Your task to perform on an android device: Toggle the flashlight Image 0: 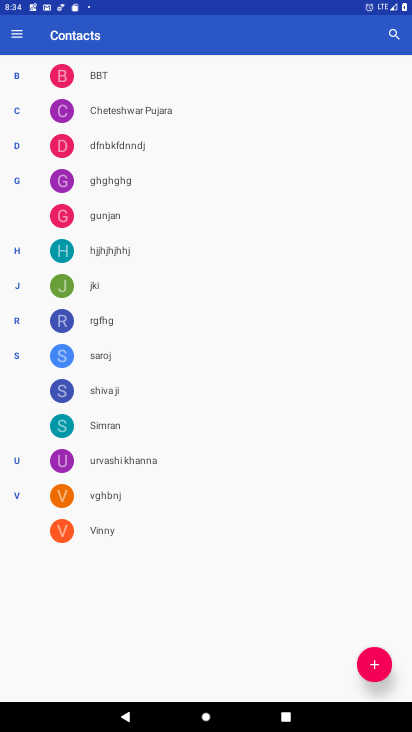
Step 0: press home button
Your task to perform on an android device: Toggle the flashlight Image 1: 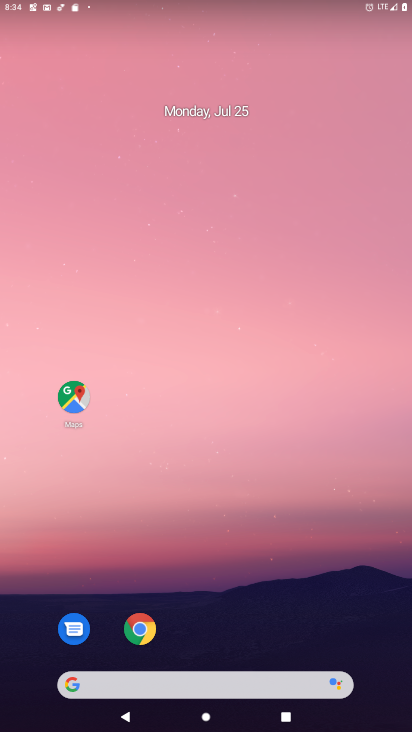
Step 1: drag from (183, 677) to (227, 248)
Your task to perform on an android device: Toggle the flashlight Image 2: 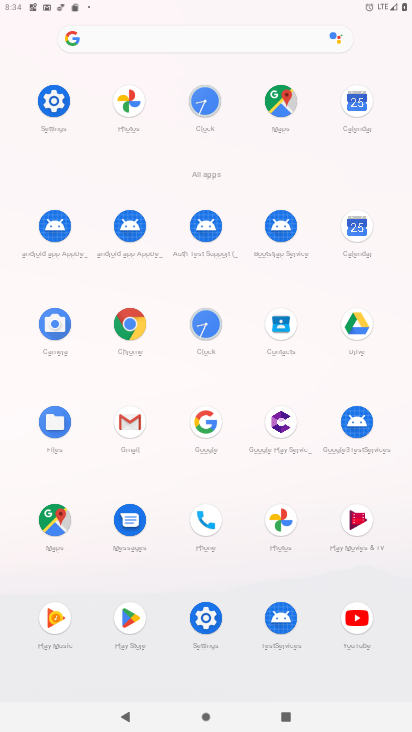
Step 2: click (54, 100)
Your task to perform on an android device: Toggle the flashlight Image 3: 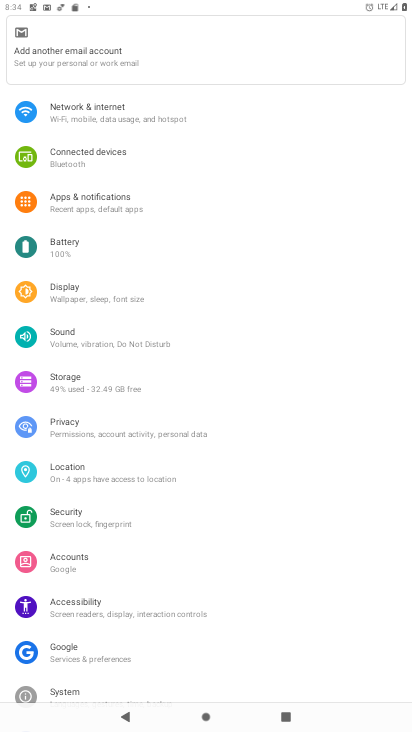
Step 3: click (74, 291)
Your task to perform on an android device: Toggle the flashlight Image 4: 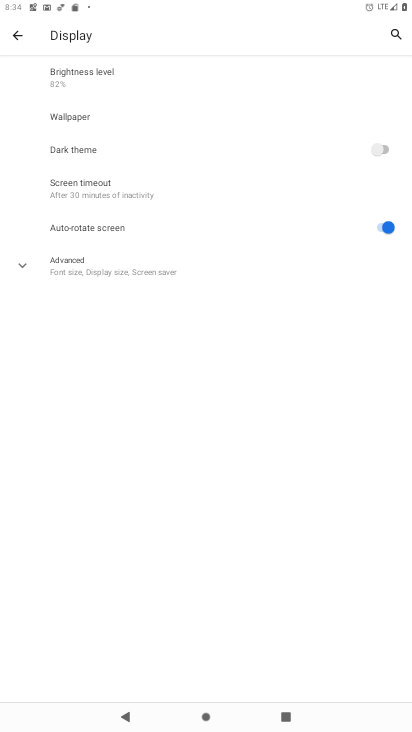
Step 4: click (93, 192)
Your task to perform on an android device: Toggle the flashlight Image 5: 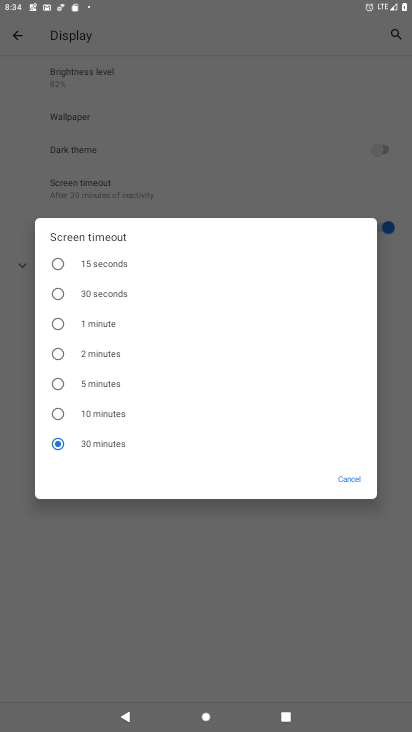
Step 5: click (353, 477)
Your task to perform on an android device: Toggle the flashlight Image 6: 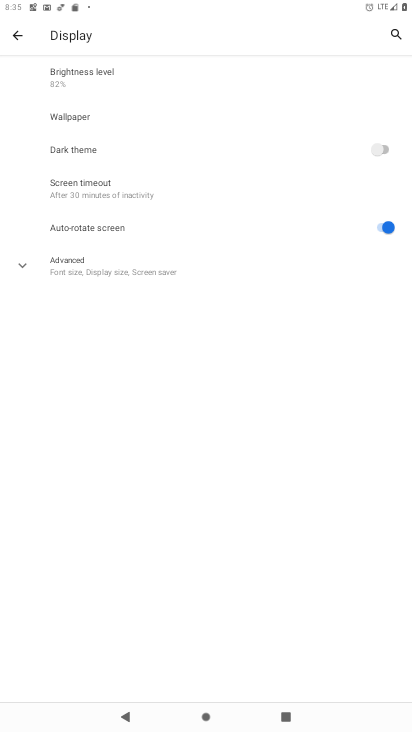
Step 6: click (96, 272)
Your task to perform on an android device: Toggle the flashlight Image 7: 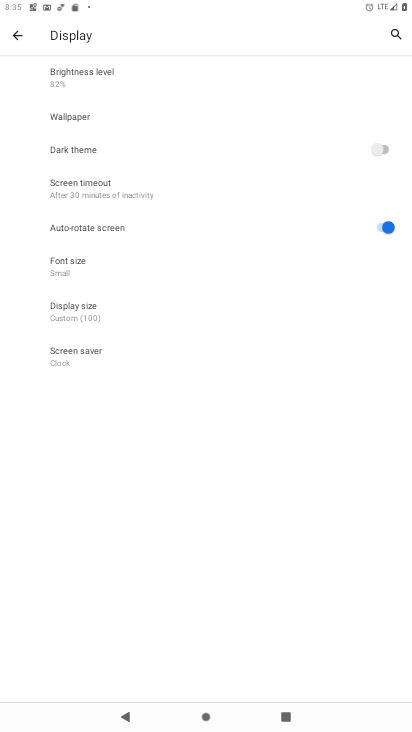
Step 7: click (87, 312)
Your task to perform on an android device: Toggle the flashlight Image 8: 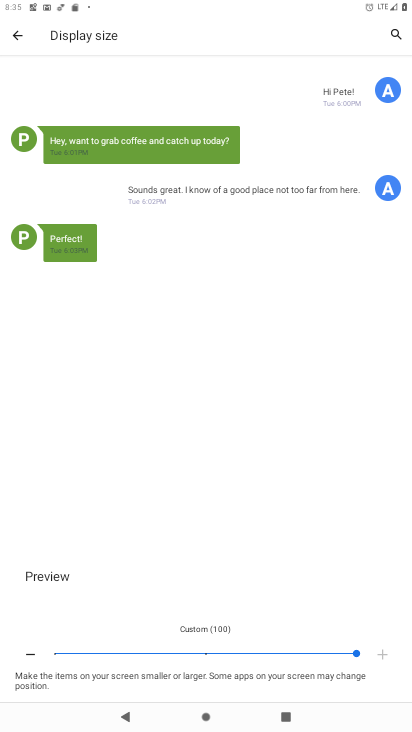
Step 8: press back button
Your task to perform on an android device: Toggle the flashlight Image 9: 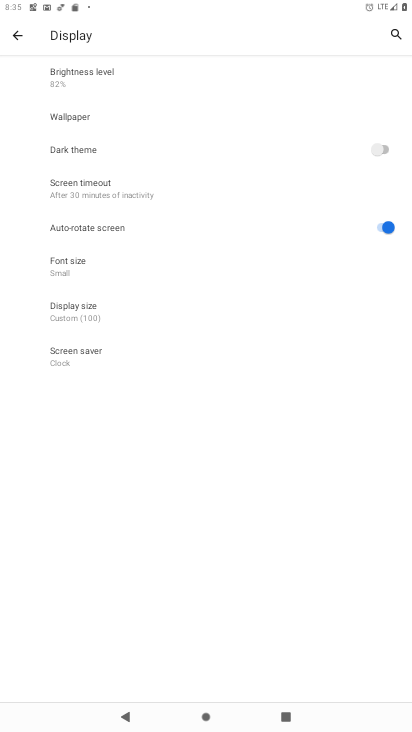
Step 9: click (77, 360)
Your task to perform on an android device: Toggle the flashlight Image 10: 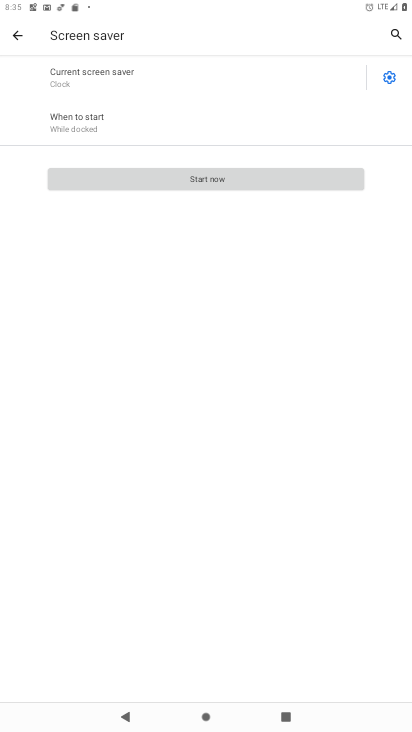
Step 10: task complete